Your task to perform on an android device: open the mobile data screen to see how much data has been used Image 0: 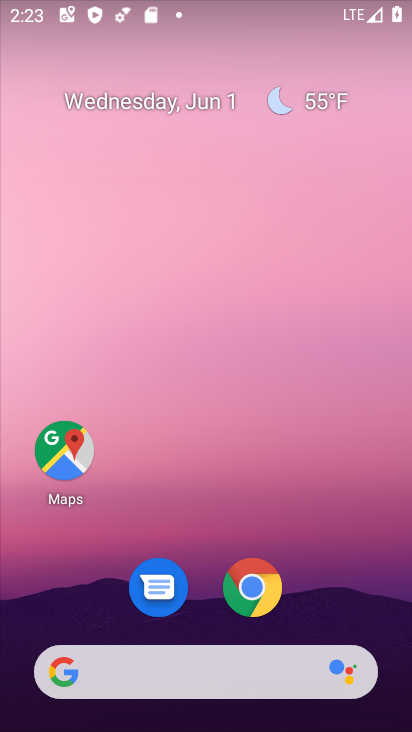
Step 0: drag from (203, 648) to (184, 138)
Your task to perform on an android device: open the mobile data screen to see how much data has been used Image 1: 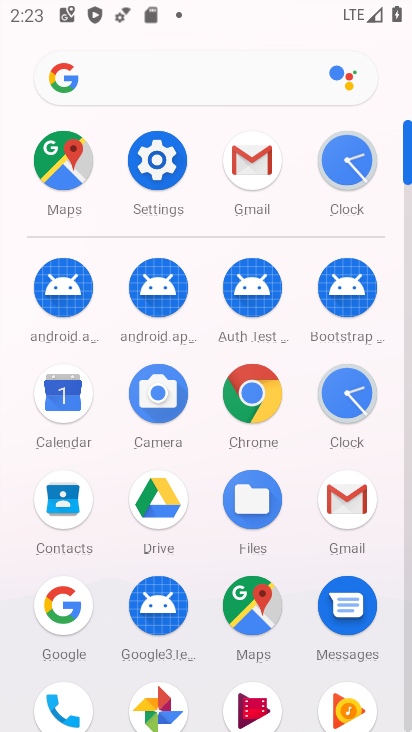
Step 1: click (156, 156)
Your task to perform on an android device: open the mobile data screen to see how much data has been used Image 2: 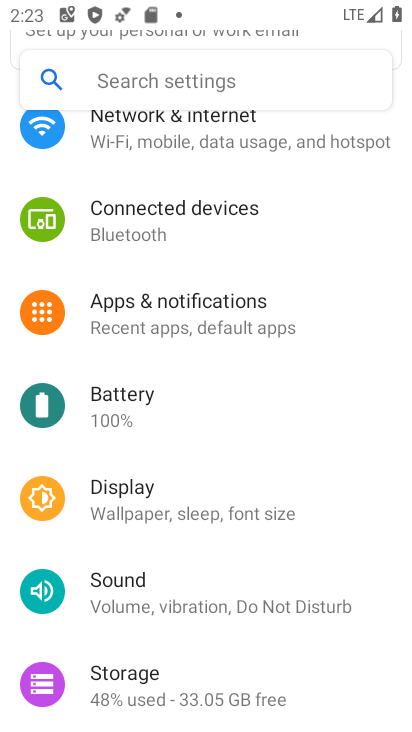
Step 2: click (135, 135)
Your task to perform on an android device: open the mobile data screen to see how much data has been used Image 3: 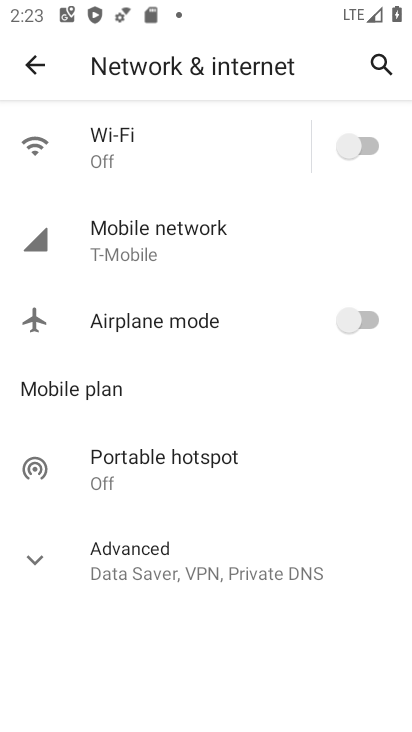
Step 3: click (162, 234)
Your task to perform on an android device: open the mobile data screen to see how much data has been used Image 4: 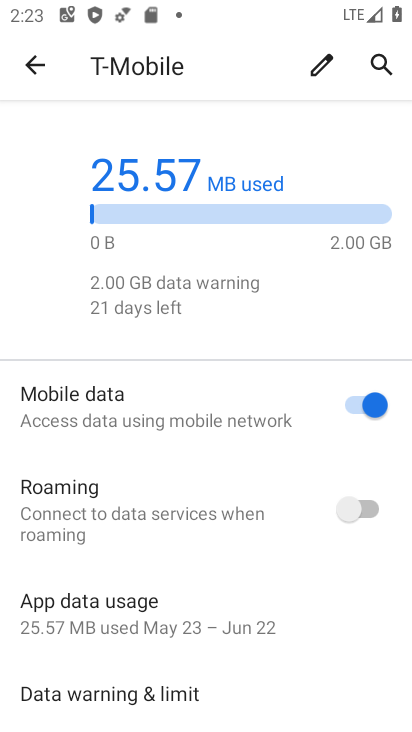
Step 4: task complete